Your task to perform on an android device: Go to Reddit.com Image 0: 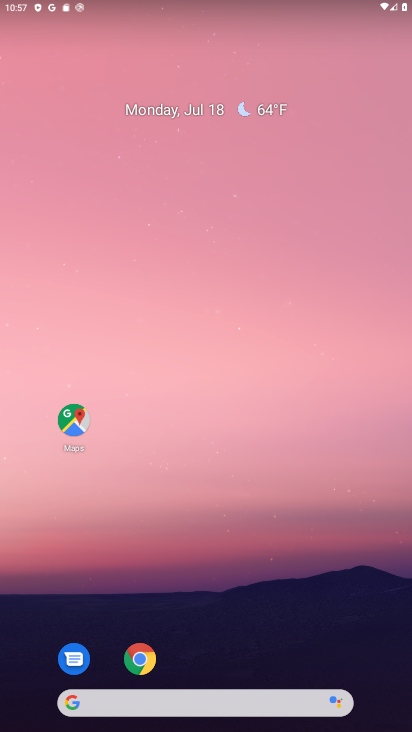
Step 0: press home button
Your task to perform on an android device: Go to Reddit.com Image 1: 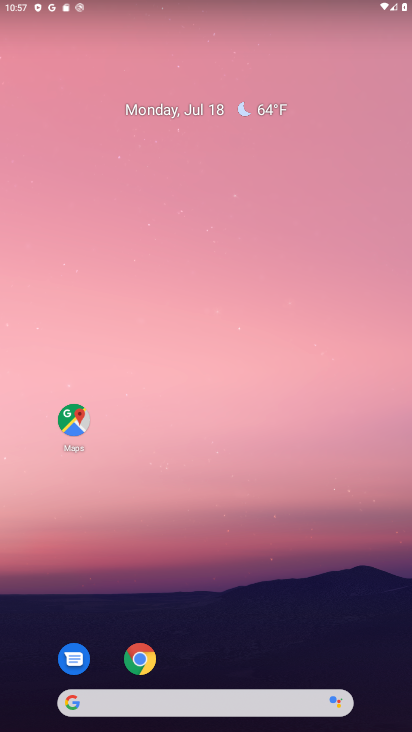
Step 1: press enter
Your task to perform on an android device: Go to Reddit.com Image 2: 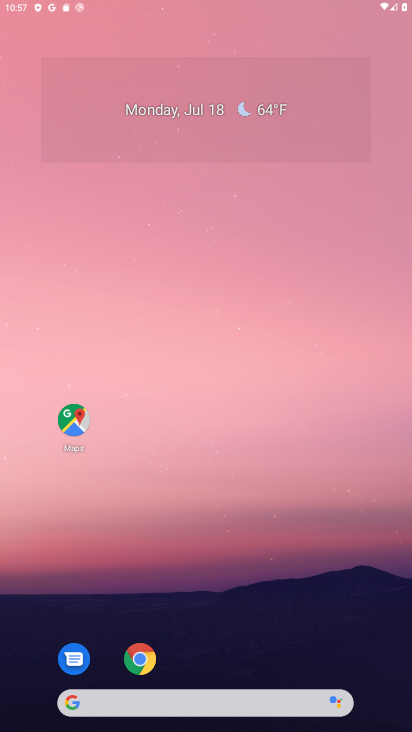
Step 2: press home button
Your task to perform on an android device: Go to Reddit.com Image 3: 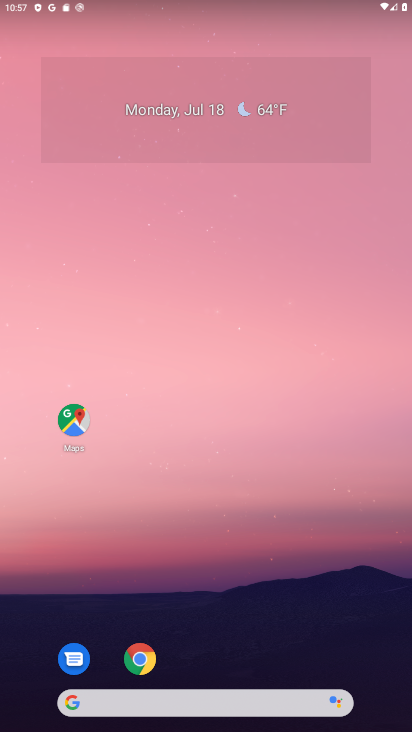
Step 3: press home button
Your task to perform on an android device: Go to Reddit.com Image 4: 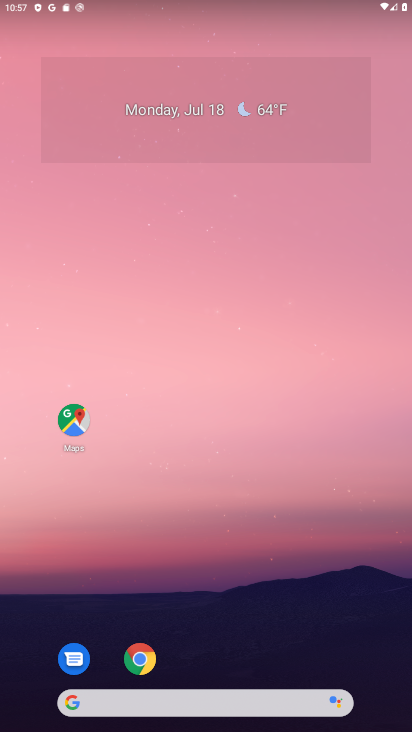
Step 4: press home button
Your task to perform on an android device: Go to Reddit.com Image 5: 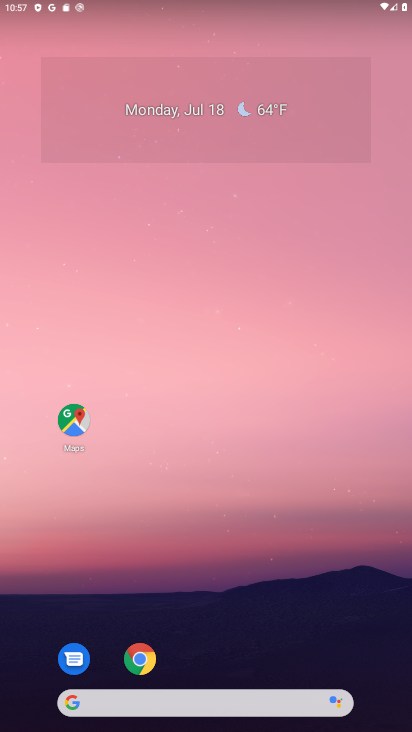
Step 5: drag from (319, 623) to (308, 356)
Your task to perform on an android device: Go to Reddit.com Image 6: 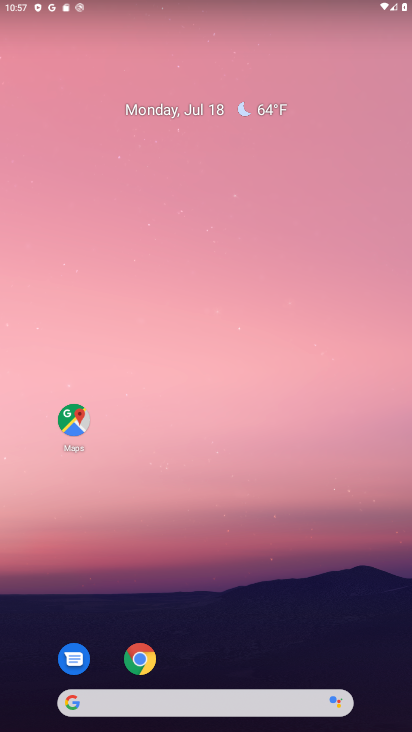
Step 6: click (132, 670)
Your task to perform on an android device: Go to Reddit.com Image 7: 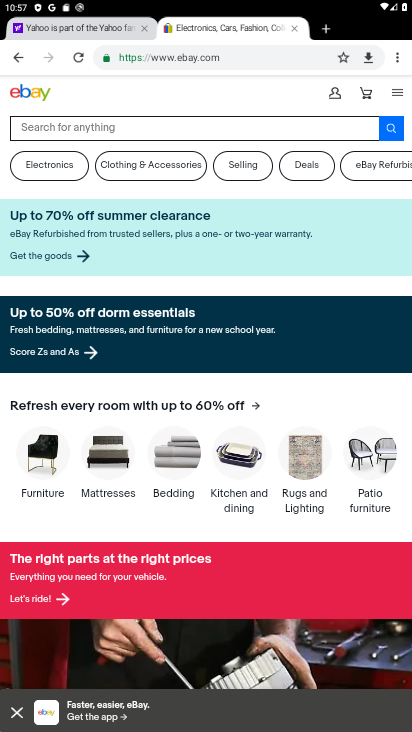
Step 7: click (195, 52)
Your task to perform on an android device: Go to Reddit.com Image 8: 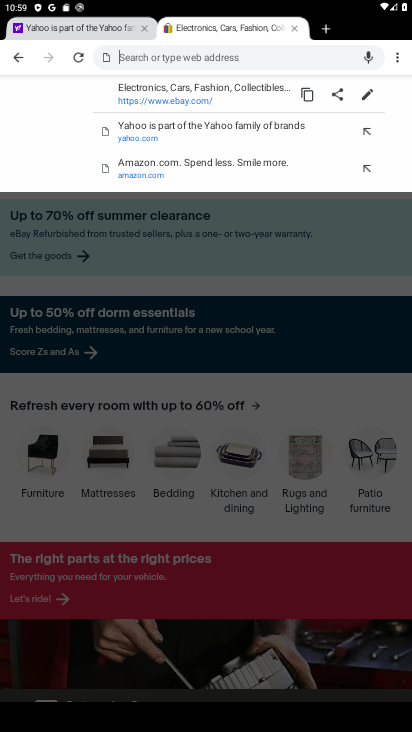
Step 8: type "Reddit.com"
Your task to perform on an android device: Go to Reddit.com Image 9: 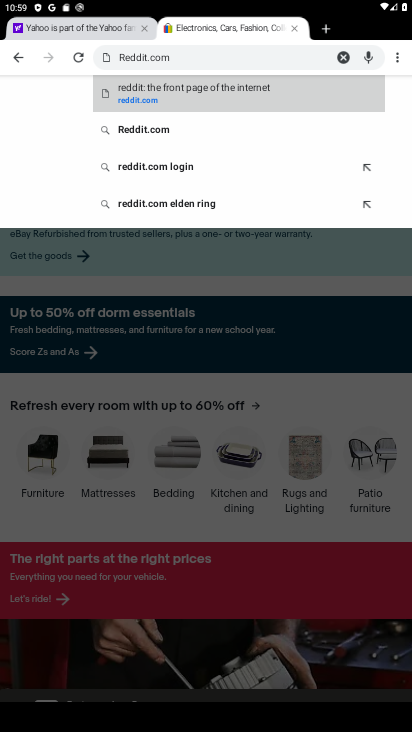
Step 9: click (209, 94)
Your task to perform on an android device: Go to Reddit.com Image 10: 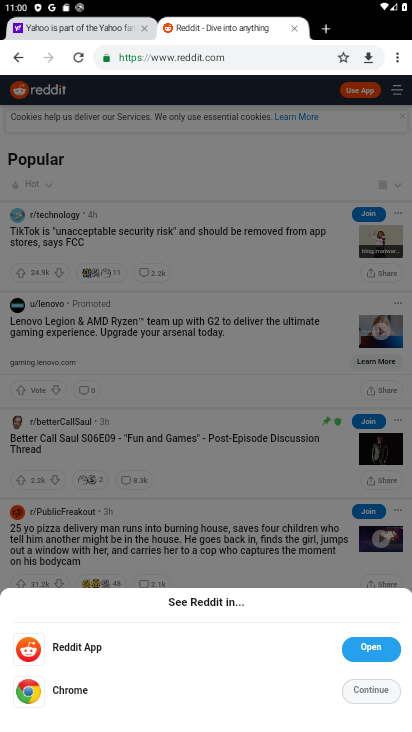
Step 10: task complete